Your task to perform on an android device: Open Youtube and go to "Your channel" Image 0: 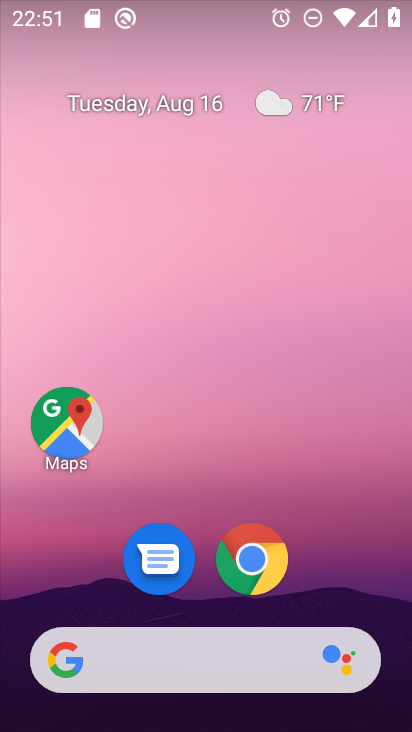
Step 0: drag from (155, 661) to (215, 144)
Your task to perform on an android device: Open Youtube and go to "Your channel" Image 1: 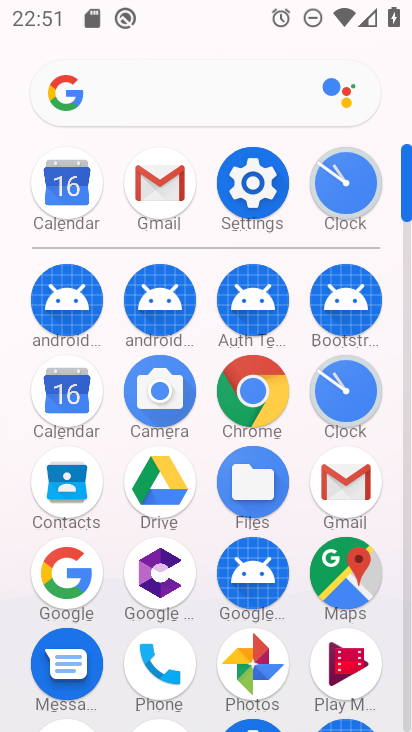
Step 1: drag from (200, 547) to (191, 301)
Your task to perform on an android device: Open Youtube and go to "Your channel" Image 2: 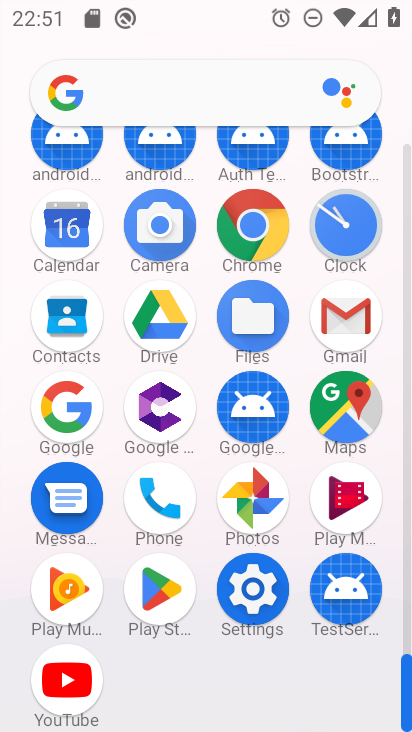
Step 2: click (66, 681)
Your task to perform on an android device: Open Youtube and go to "Your channel" Image 3: 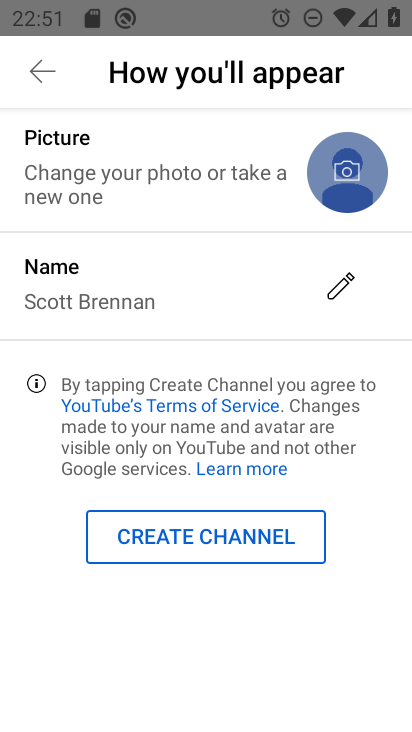
Step 3: task complete